Your task to perform on an android device: turn off airplane mode Image 0: 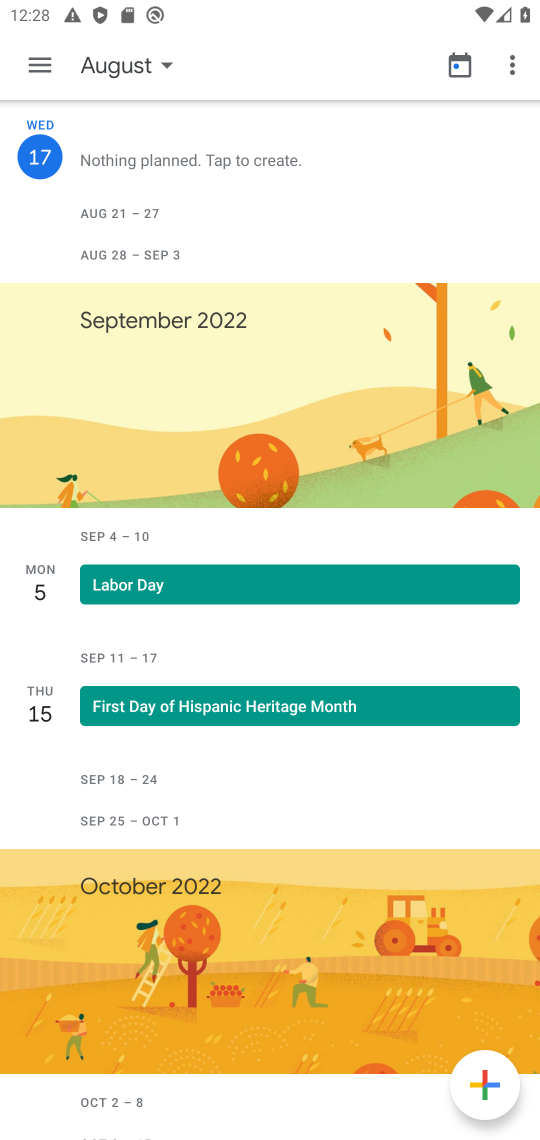
Step 0: press home button
Your task to perform on an android device: turn off airplane mode Image 1: 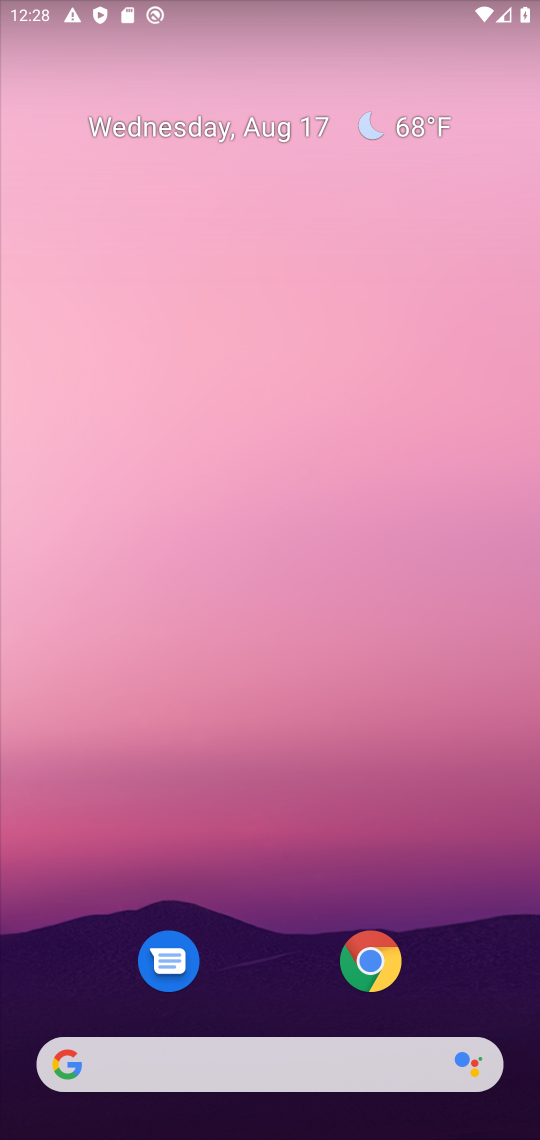
Step 1: drag from (204, 1024) to (238, 198)
Your task to perform on an android device: turn off airplane mode Image 2: 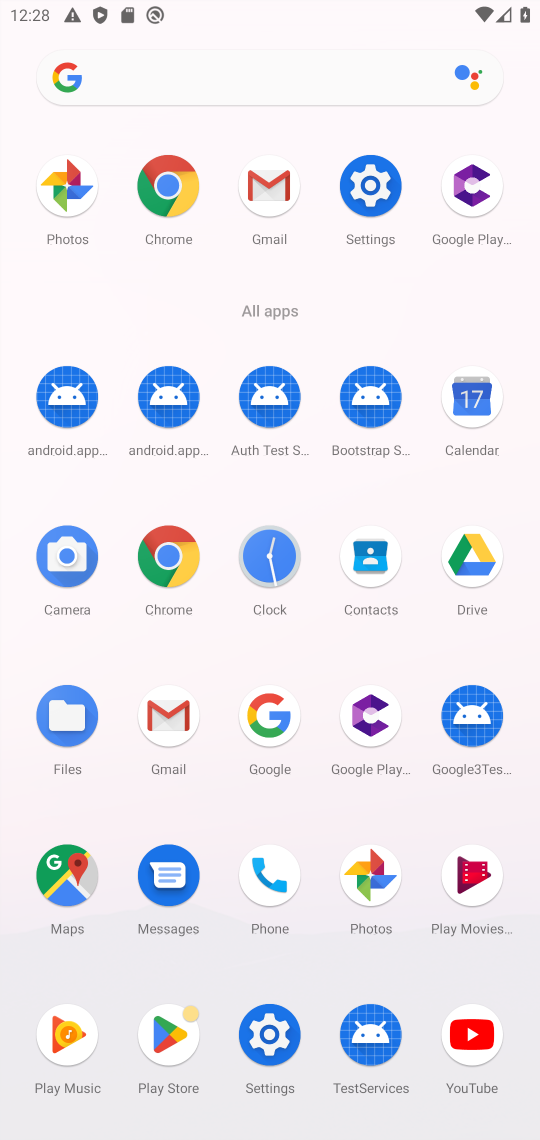
Step 2: click (346, 219)
Your task to perform on an android device: turn off airplane mode Image 3: 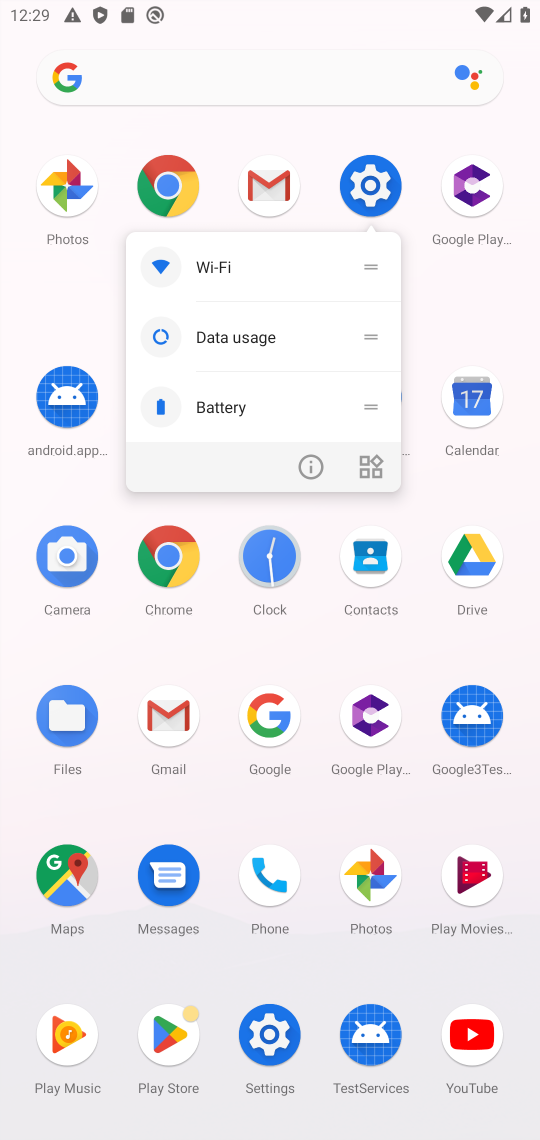
Step 3: click (364, 189)
Your task to perform on an android device: turn off airplane mode Image 4: 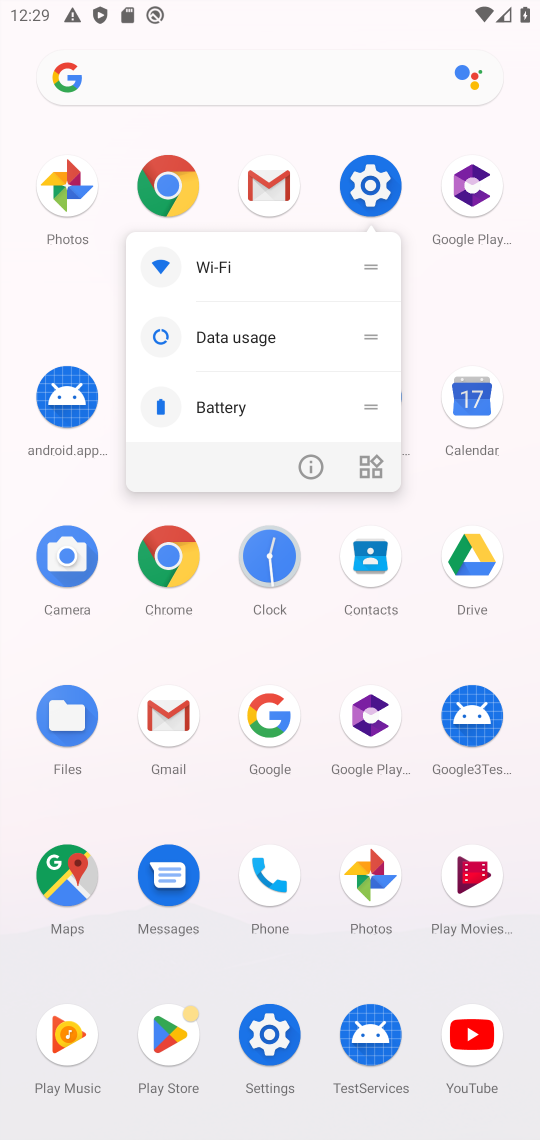
Step 4: click (359, 190)
Your task to perform on an android device: turn off airplane mode Image 5: 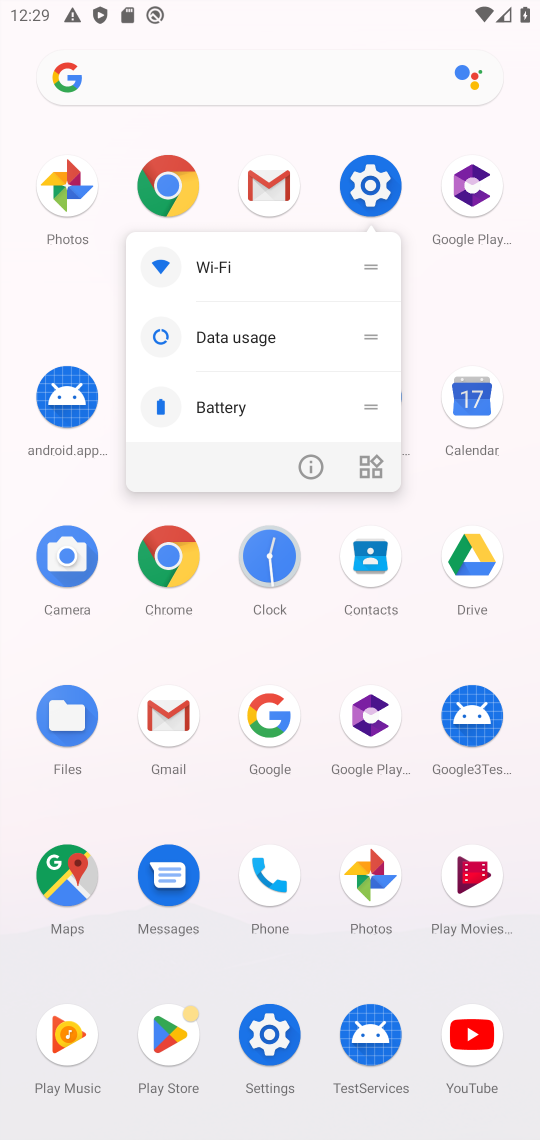
Step 5: click (362, 189)
Your task to perform on an android device: turn off airplane mode Image 6: 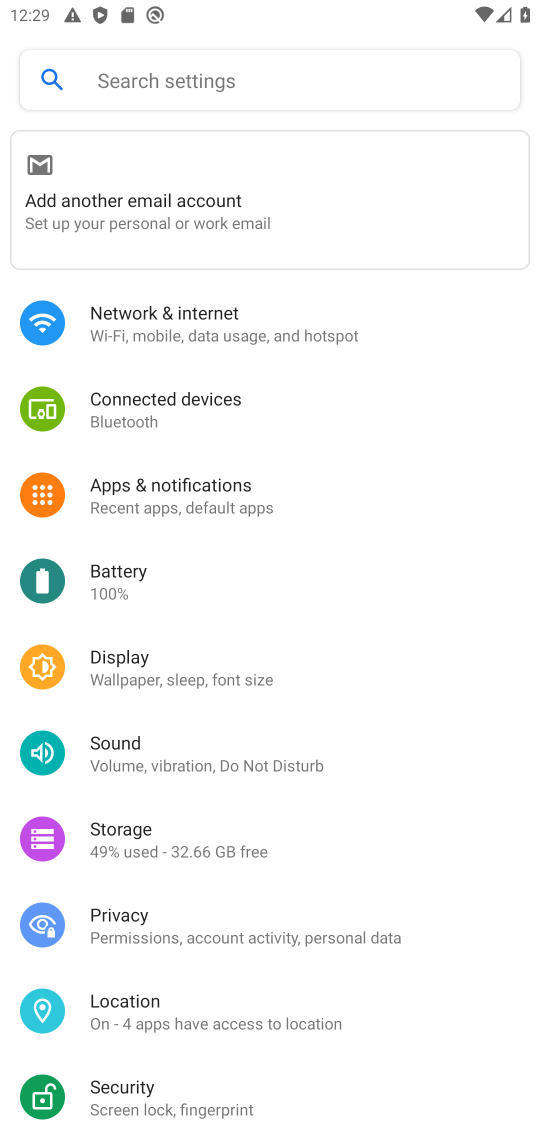
Step 6: click (267, 334)
Your task to perform on an android device: turn off airplane mode Image 7: 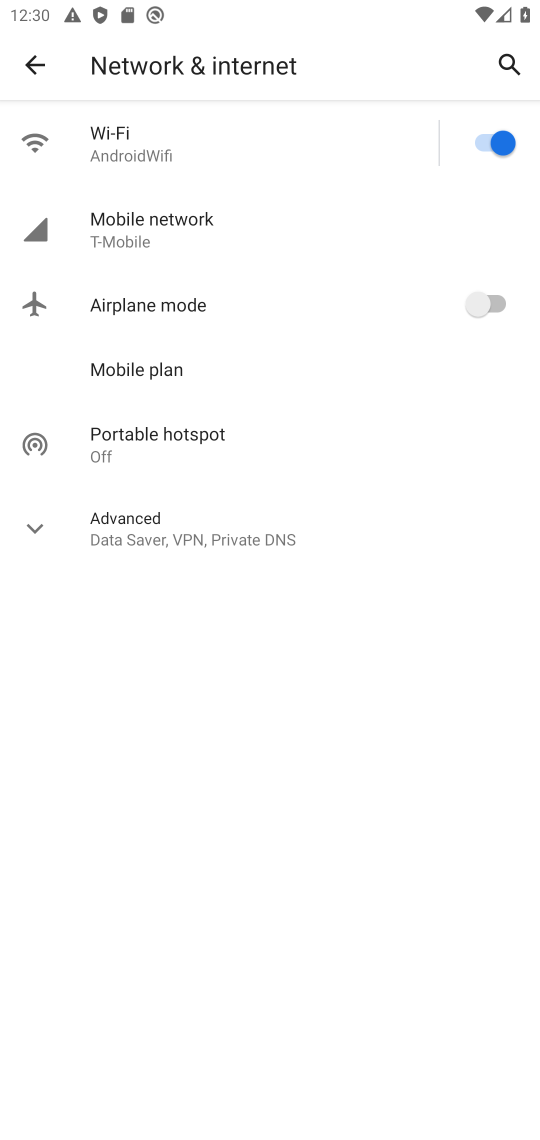
Step 7: task complete